Your task to perform on an android device: Add "razer blade" to the cart on amazon.com Image 0: 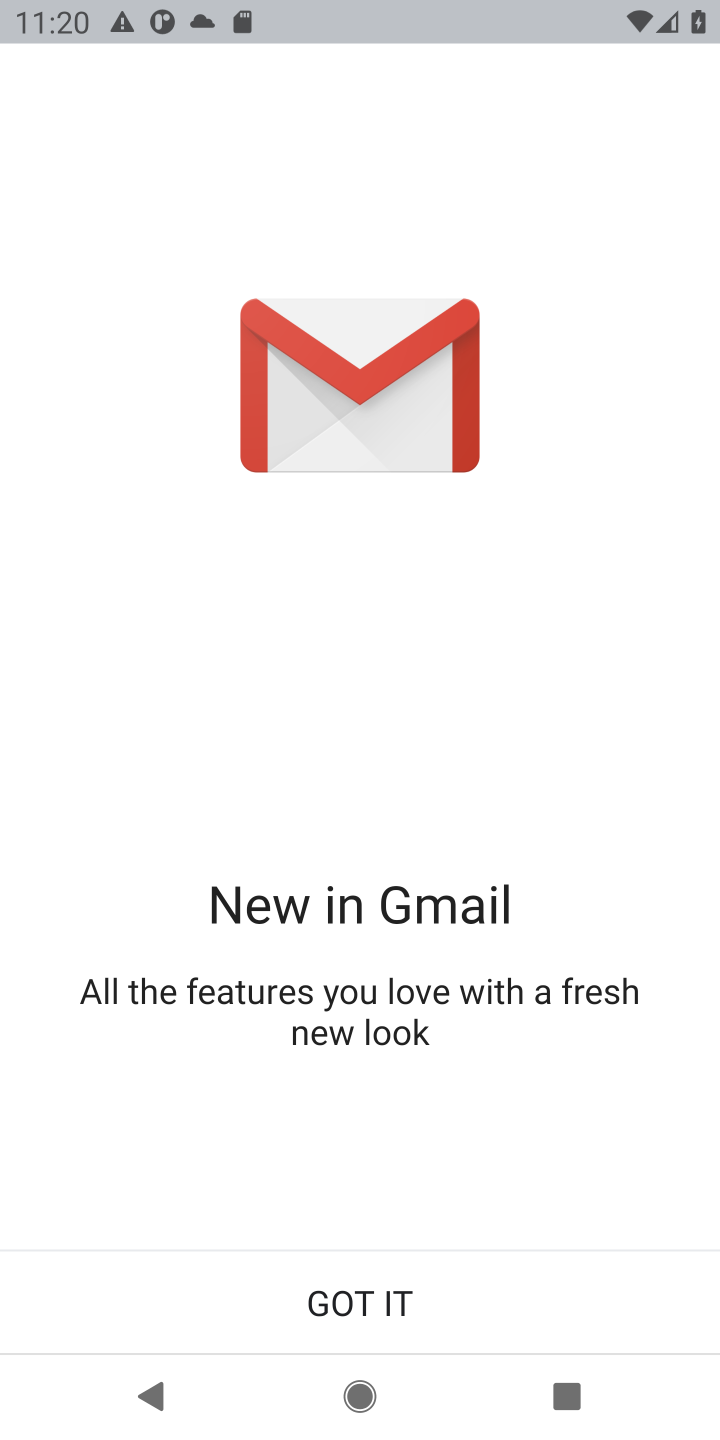
Step 0: press home button
Your task to perform on an android device: Add "razer blade" to the cart on amazon.com Image 1: 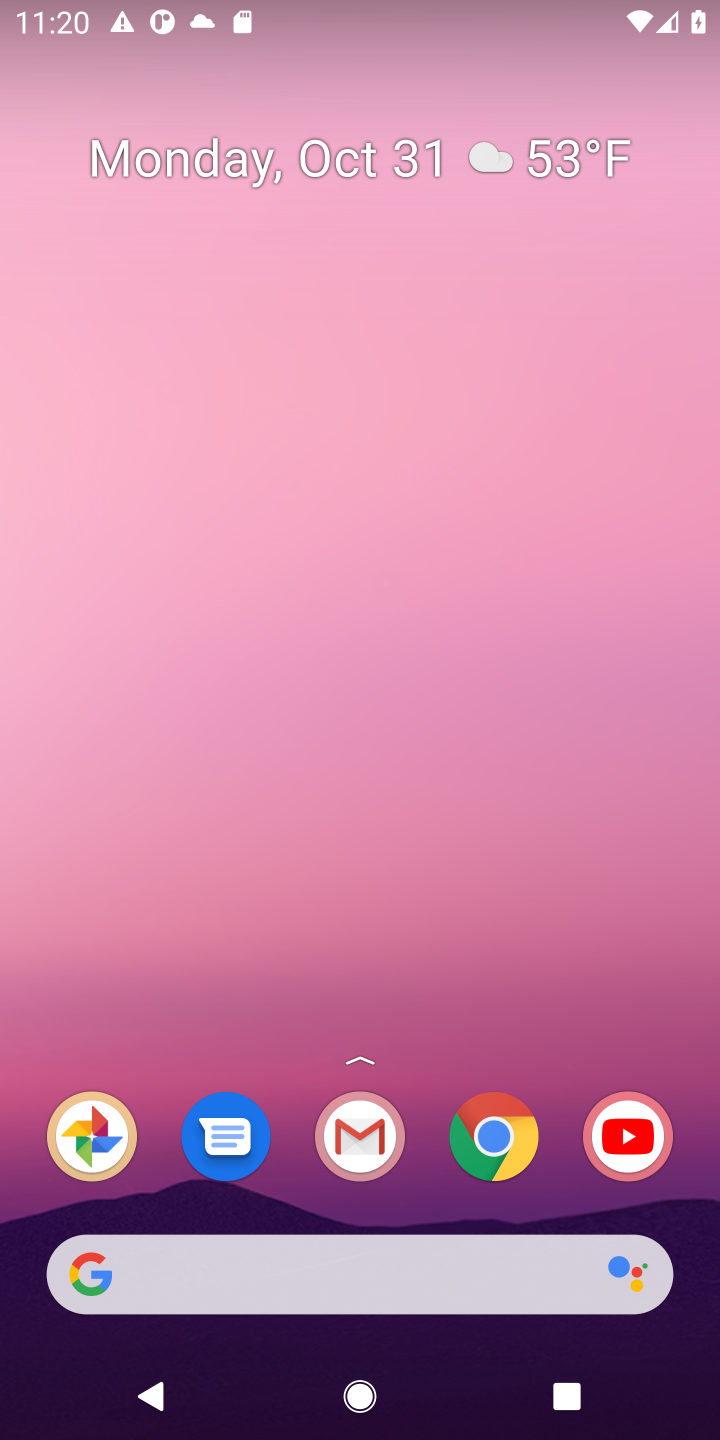
Step 1: click (133, 1265)
Your task to perform on an android device: Add "razer blade" to the cart on amazon.com Image 2: 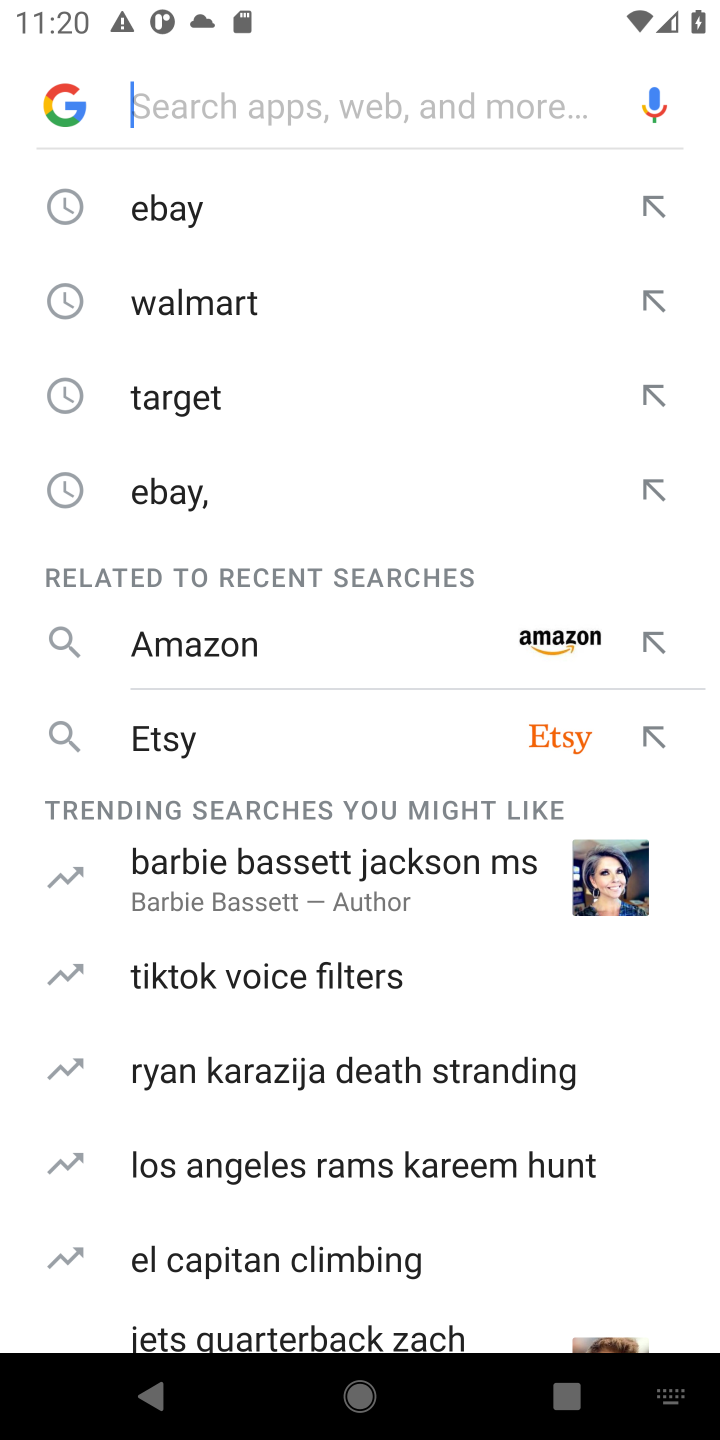
Step 2: press enter
Your task to perform on an android device: Add "razer blade" to the cart on amazon.com Image 3: 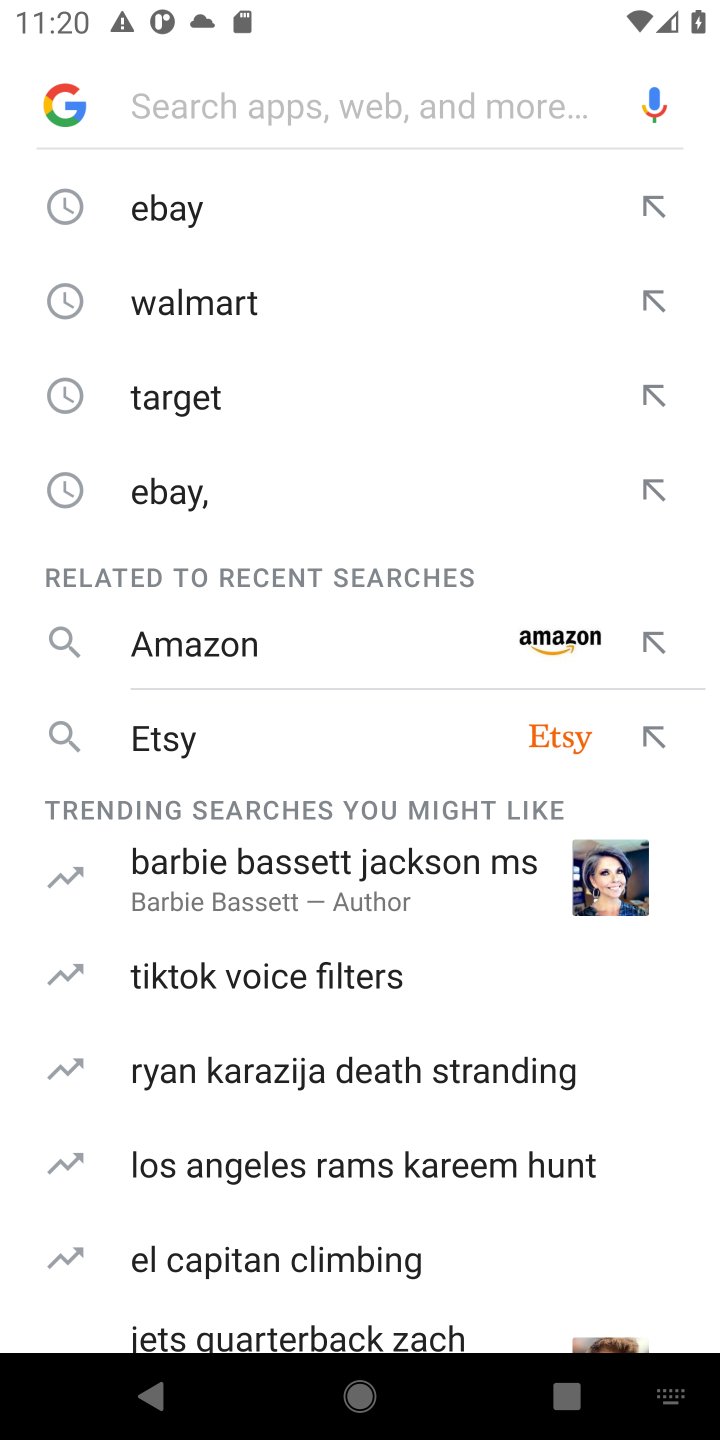
Step 3: type "amazon.com"
Your task to perform on an android device: Add "razer blade" to the cart on amazon.com Image 4: 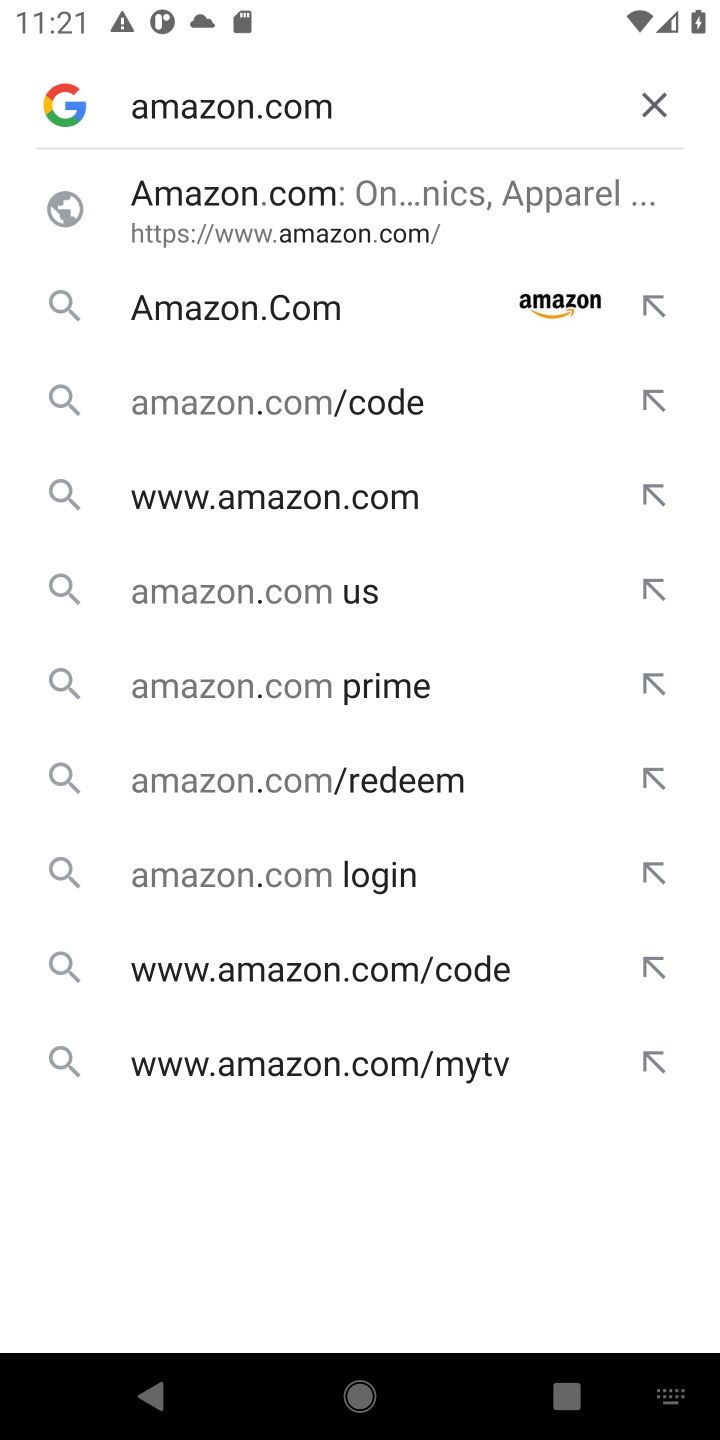
Step 4: press enter
Your task to perform on an android device: Add "razer blade" to the cart on amazon.com Image 5: 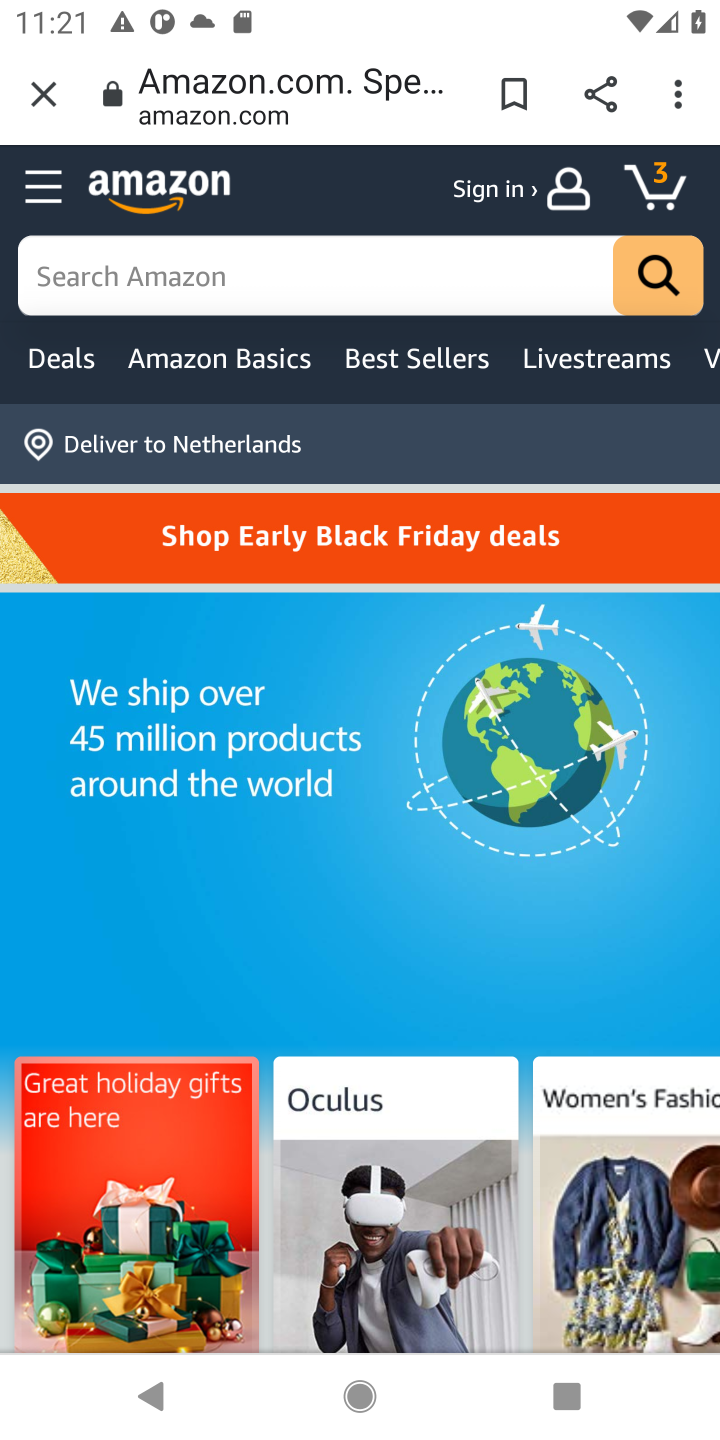
Step 5: click (85, 268)
Your task to perform on an android device: Add "razer blade" to the cart on amazon.com Image 6: 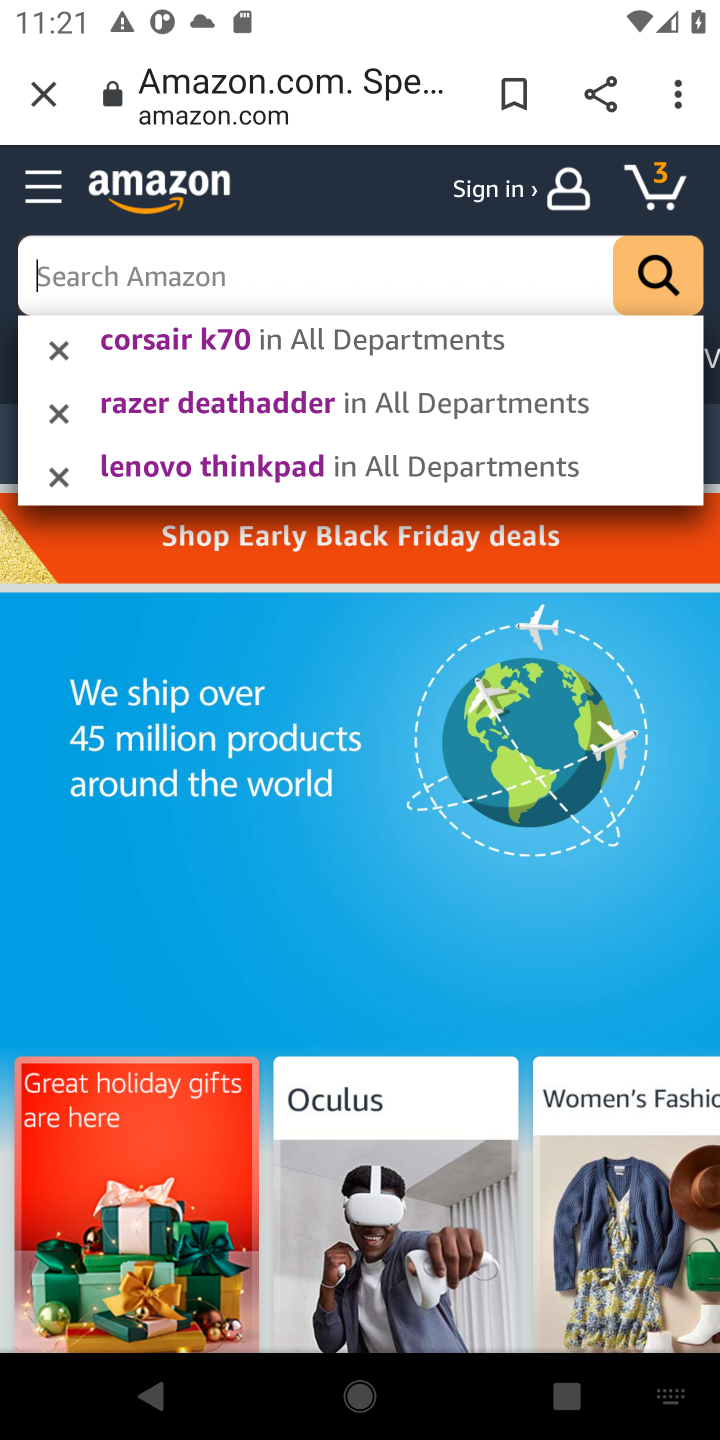
Step 6: type "razer blade"
Your task to perform on an android device: Add "razer blade" to the cart on amazon.com Image 7: 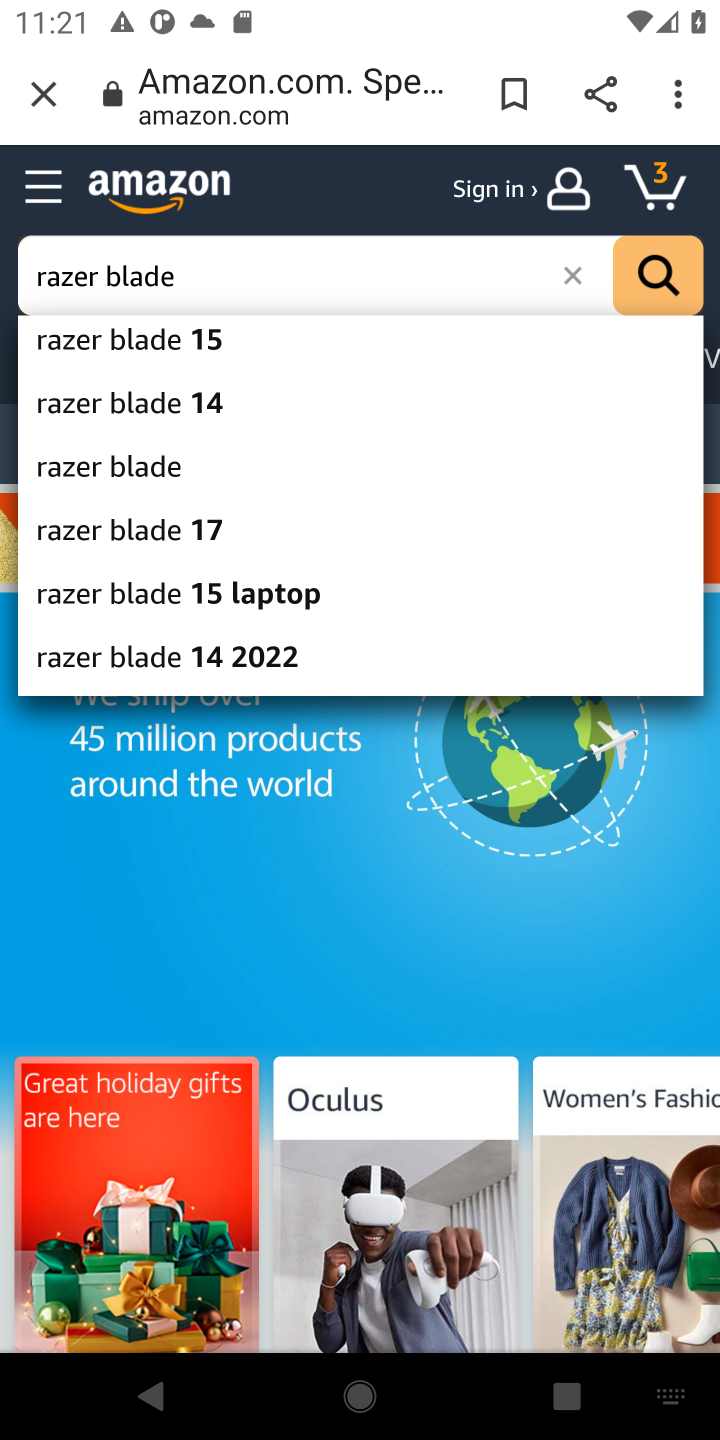
Step 7: click (647, 270)
Your task to perform on an android device: Add "razer blade" to the cart on amazon.com Image 8: 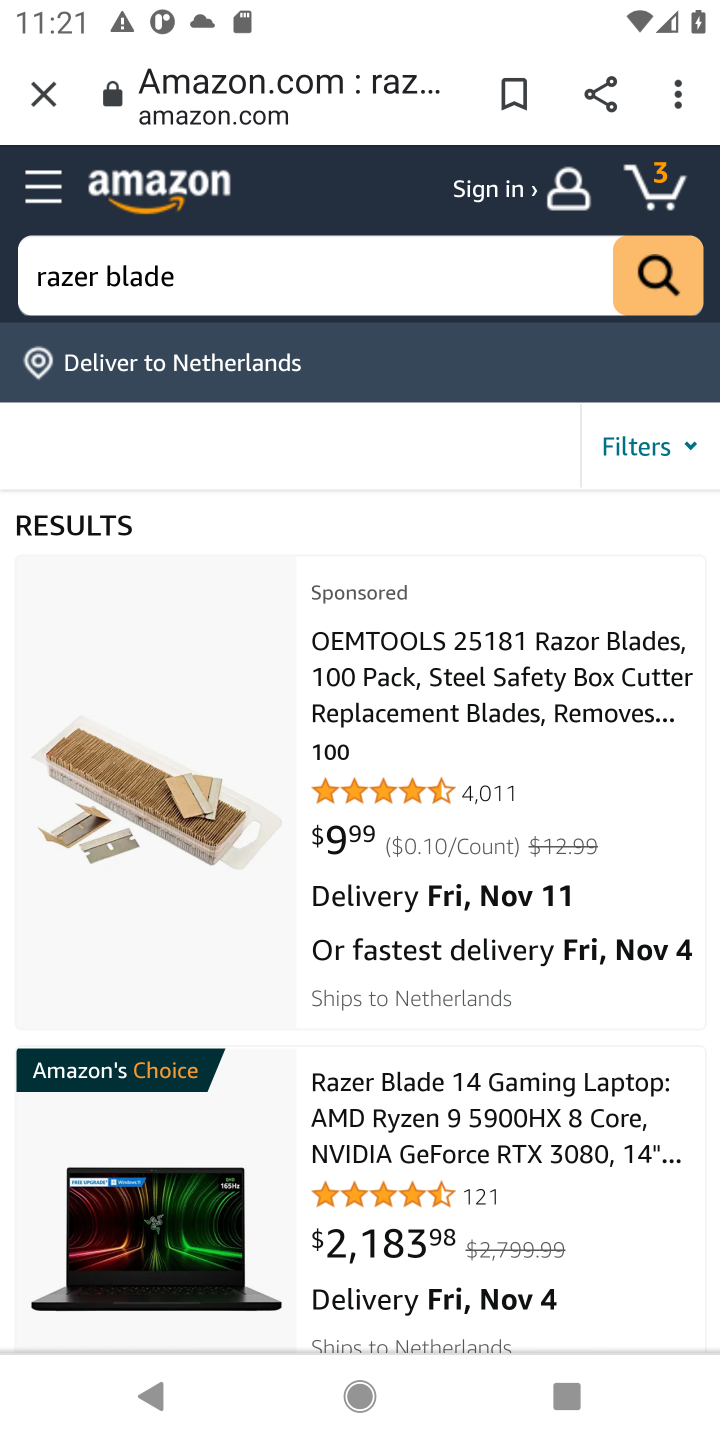
Step 8: drag from (510, 1183) to (566, 802)
Your task to perform on an android device: Add "razer blade" to the cart on amazon.com Image 9: 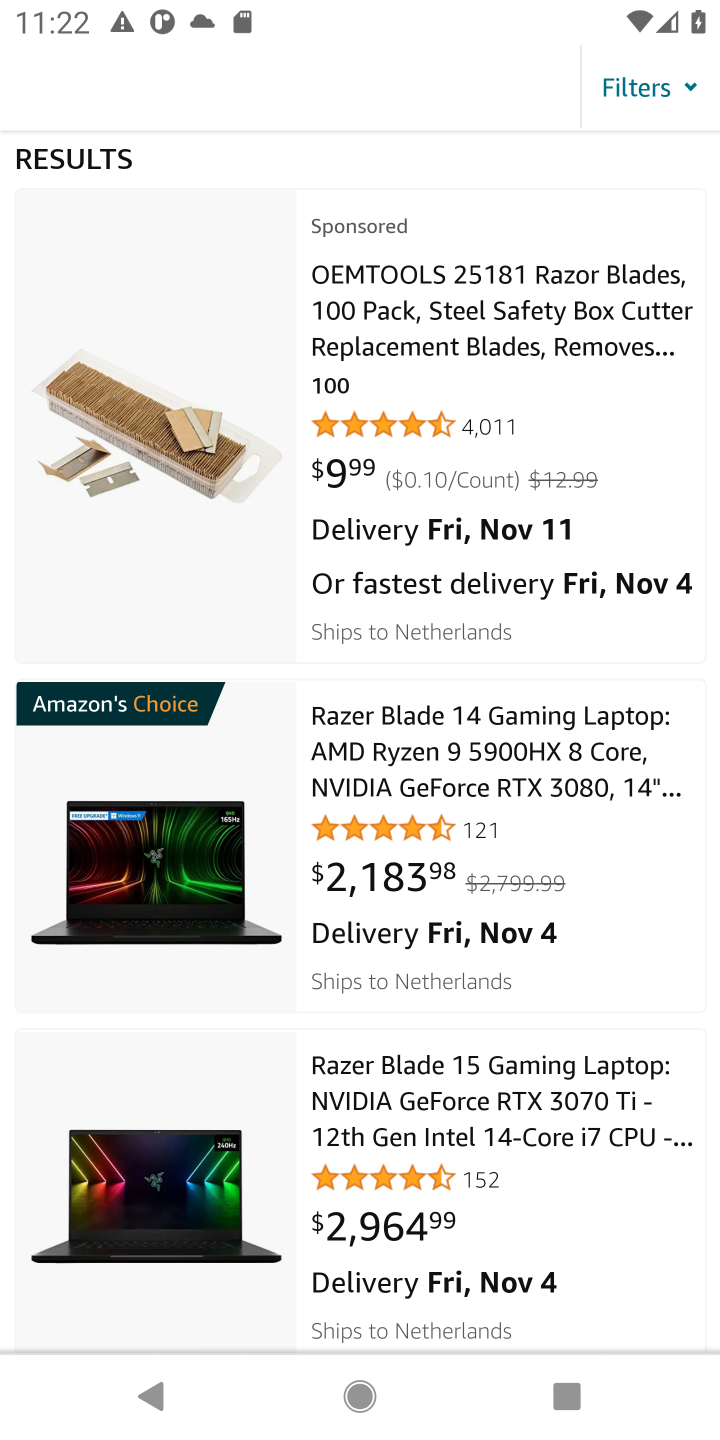
Step 9: click (441, 818)
Your task to perform on an android device: Add "razer blade" to the cart on amazon.com Image 10: 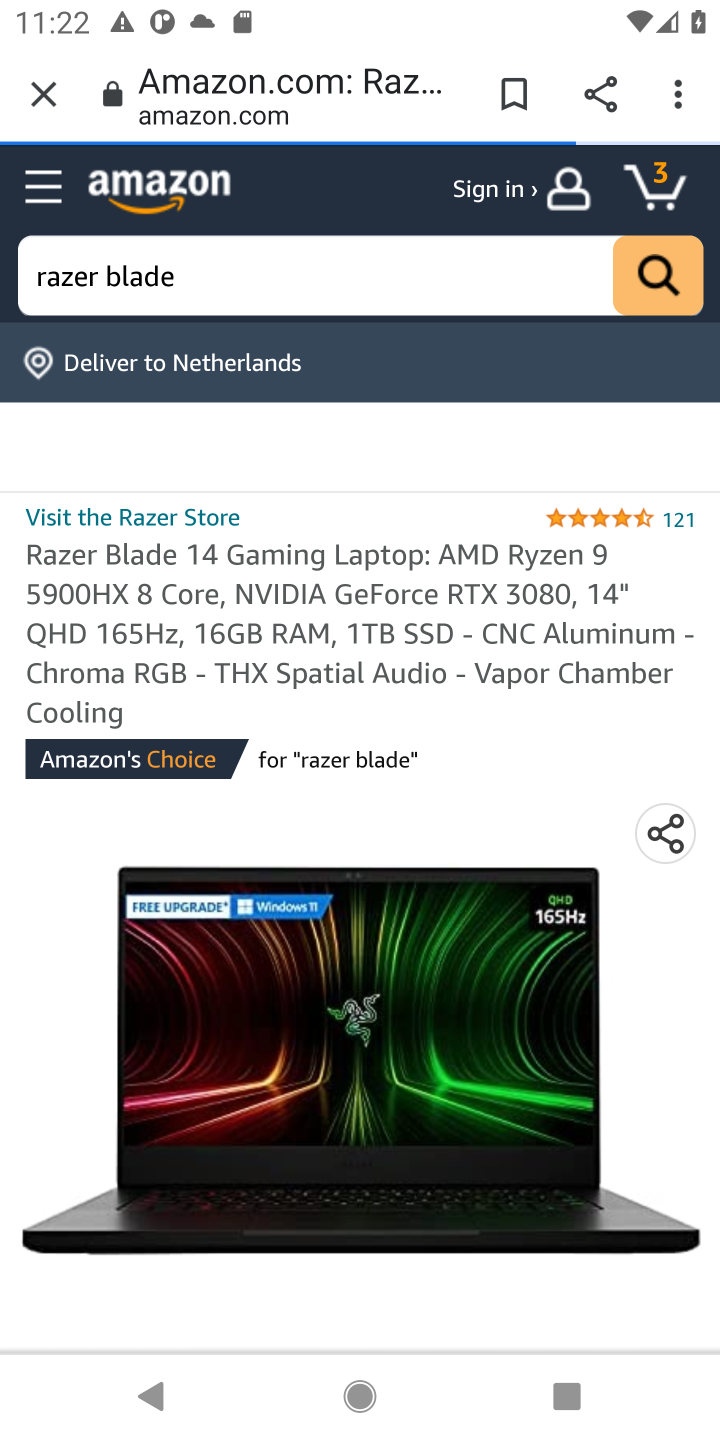
Step 10: drag from (297, 1029) to (360, 485)
Your task to perform on an android device: Add "razer blade" to the cart on amazon.com Image 11: 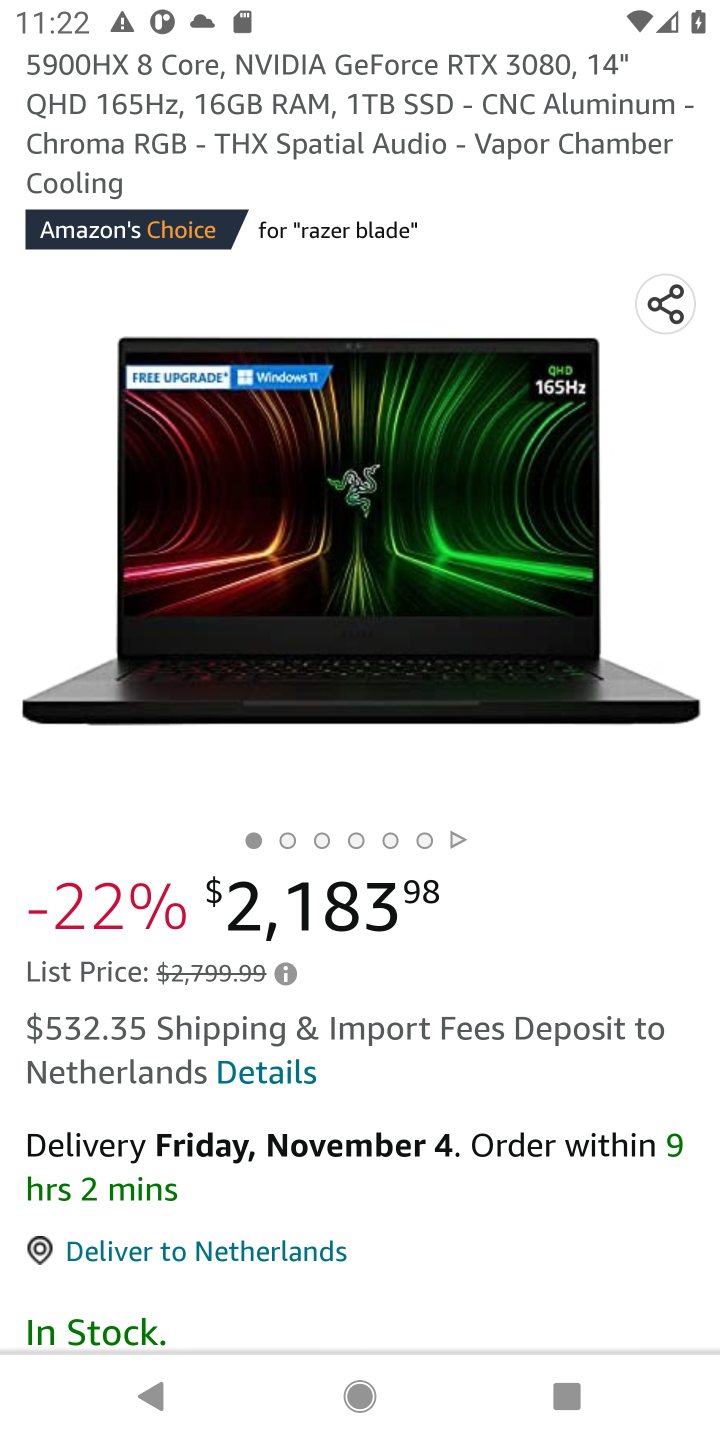
Step 11: drag from (339, 840) to (353, 498)
Your task to perform on an android device: Add "razer blade" to the cart on amazon.com Image 12: 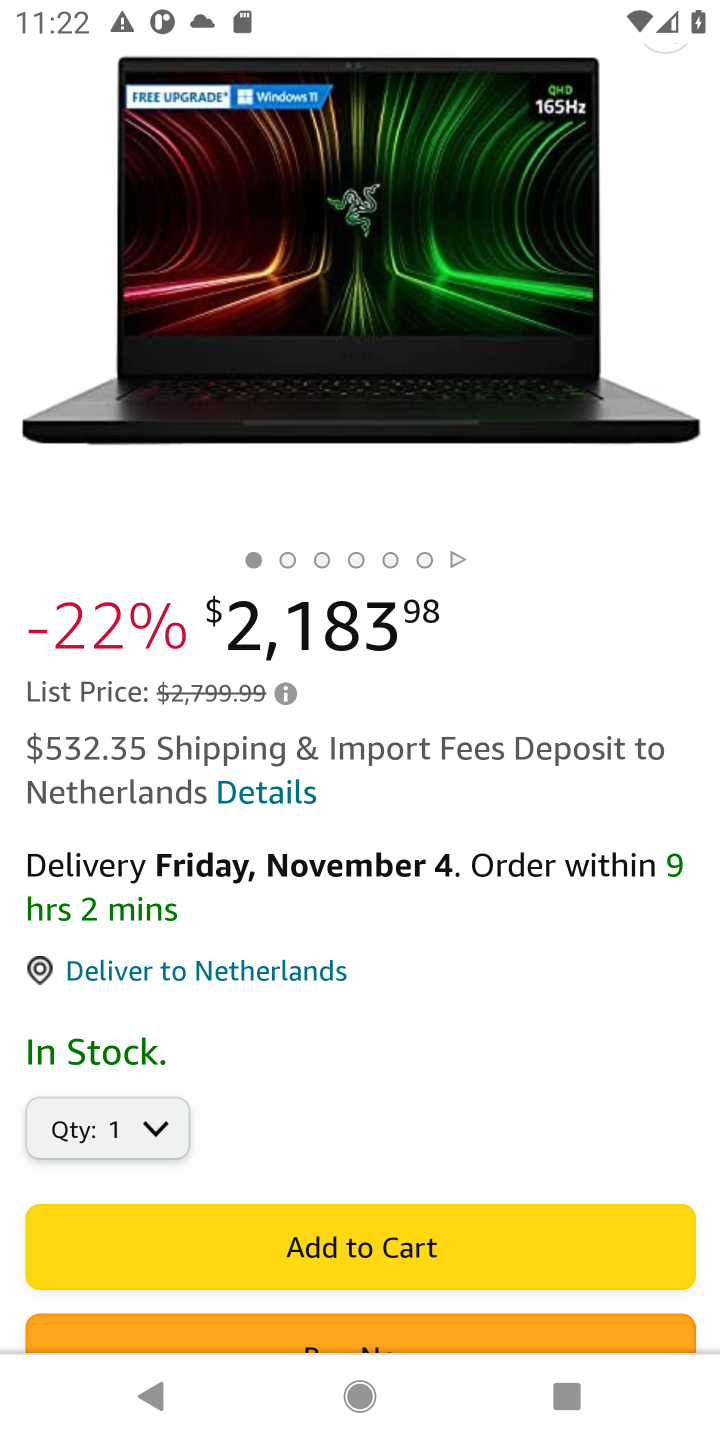
Step 12: drag from (505, 1024) to (528, 394)
Your task to perform on an android device: Add "razer blade" to the cart on amazon.com Image 13: 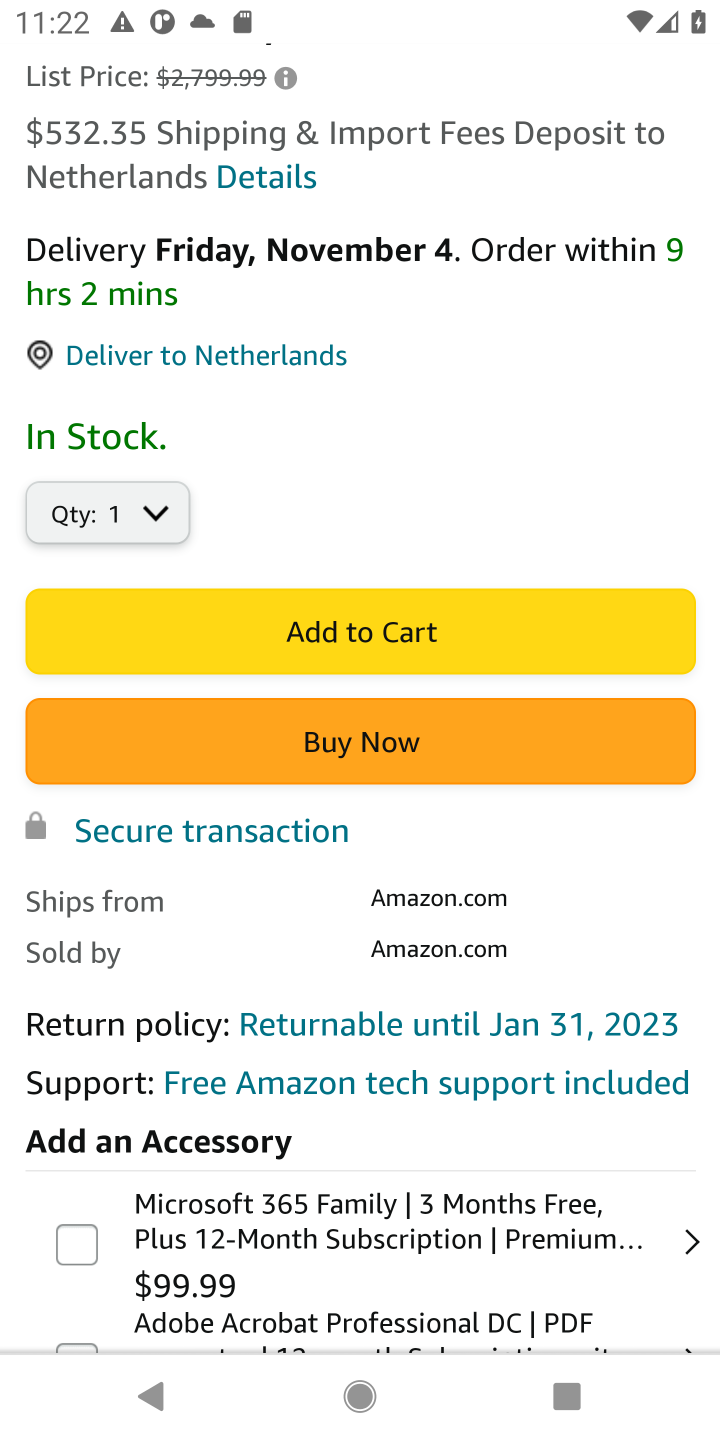
Step 13: click (312, 635)
Your task to perform on an android device: Add "razer blade" to the cart on amazon.com Image 14: 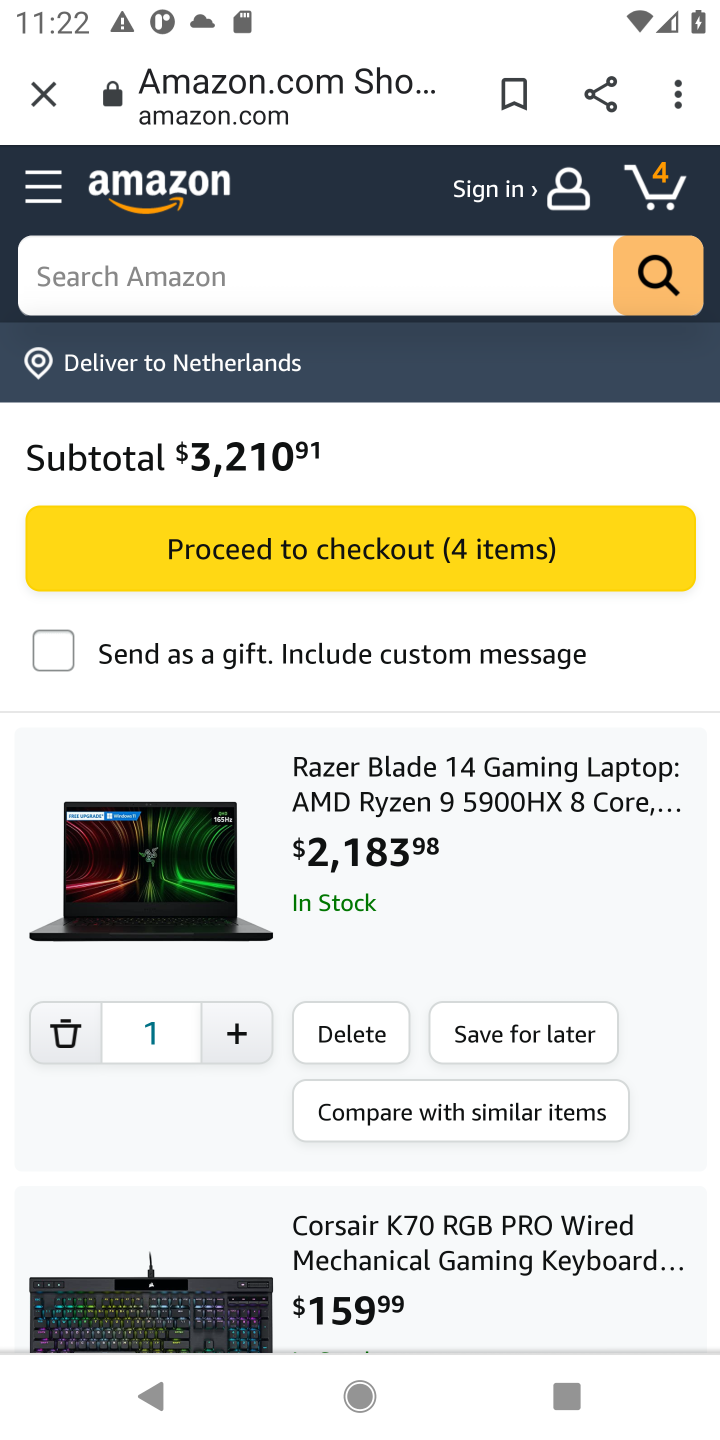
Step 14: task complete